Your task to perform on an android device: open device folders in google photos Image 0: 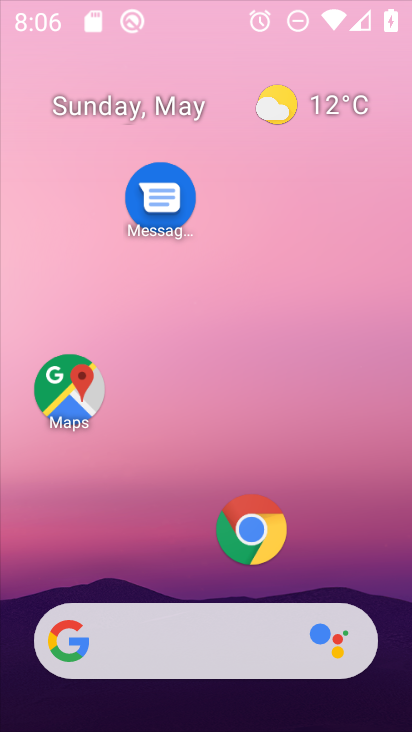
Step 0: press home button
Your task to perform on an android device: open device folders in google photos Image 1: 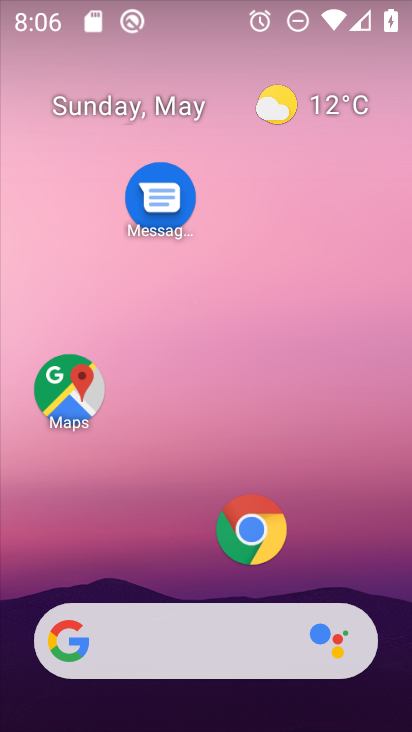
Step 1: drag from (200, 578) to (214, 121)
Your task to perform on an android device: open device folders in google photos Image 2: 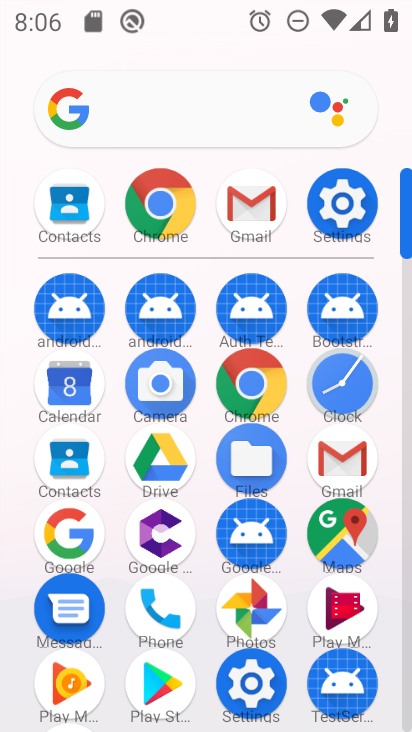
Step 2: click (246, 598)
Your task to perform on an android device: open device folders in google photos Image 3: 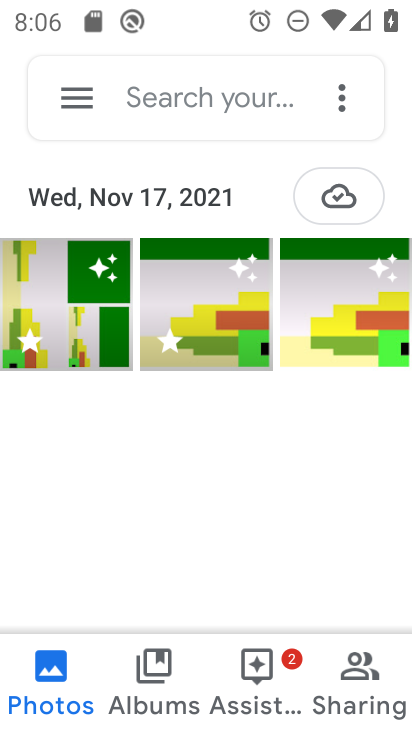
Step 3: click (75, 106)
Your task to perform on an android device: open device folders in google photos Image 4: 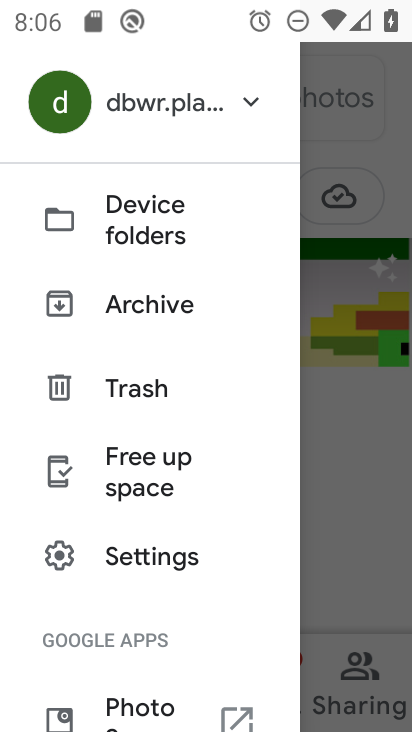
Step 4: click (152, 220)
Your task to perform on an android device: open device folders in google photos Image 5: 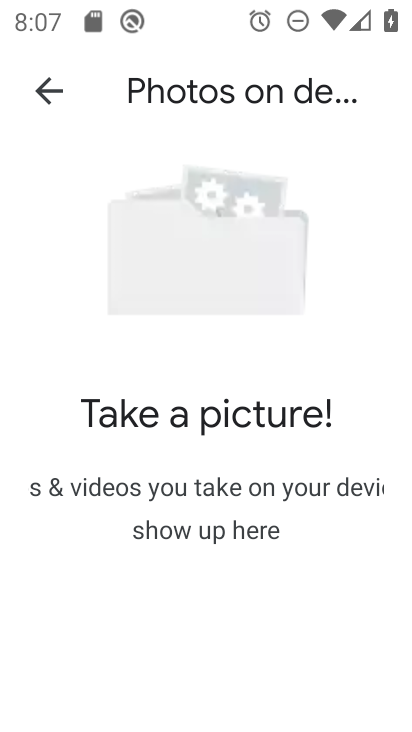
Step 5: task complete